Your task to perform on an android device: Go to settings Image 0: 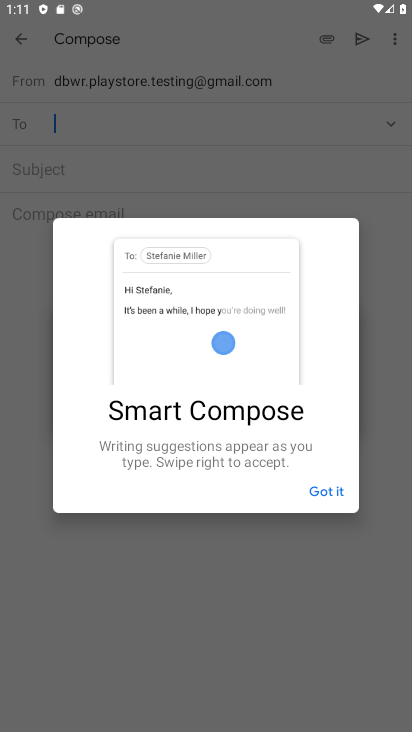
Step 0: press home button
Your task to perform on an android device: Go to settings Image 1: 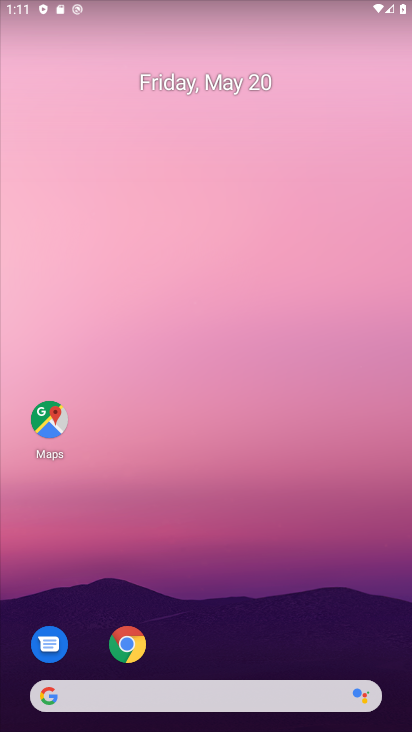
Step 1: drag from (229, 650) to (210, 162)
Your task to perform on an android device: Go to settings Image 2: 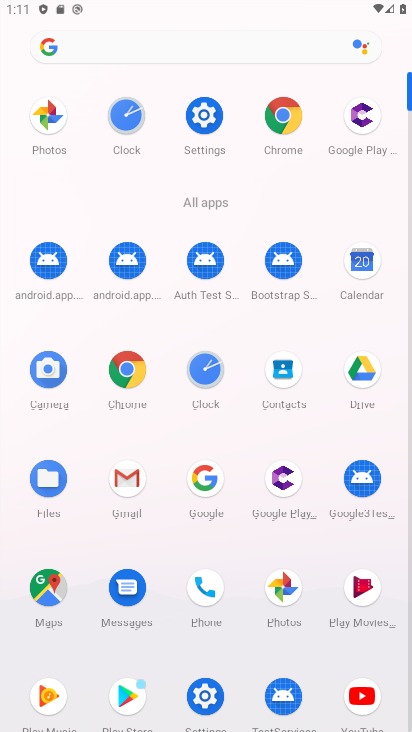
Step 2: click (209, 122)
Your task to perform on an android device: Go to settings Image 3: 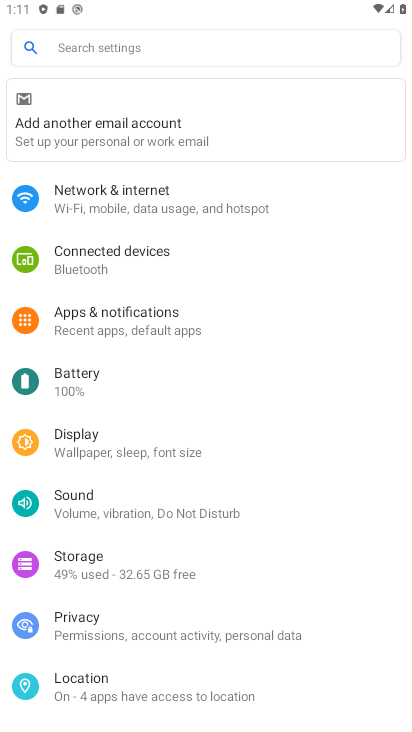
Step 3: task complete